Your task to perform on an android device: toggle javascript in the chrome app Image 0: 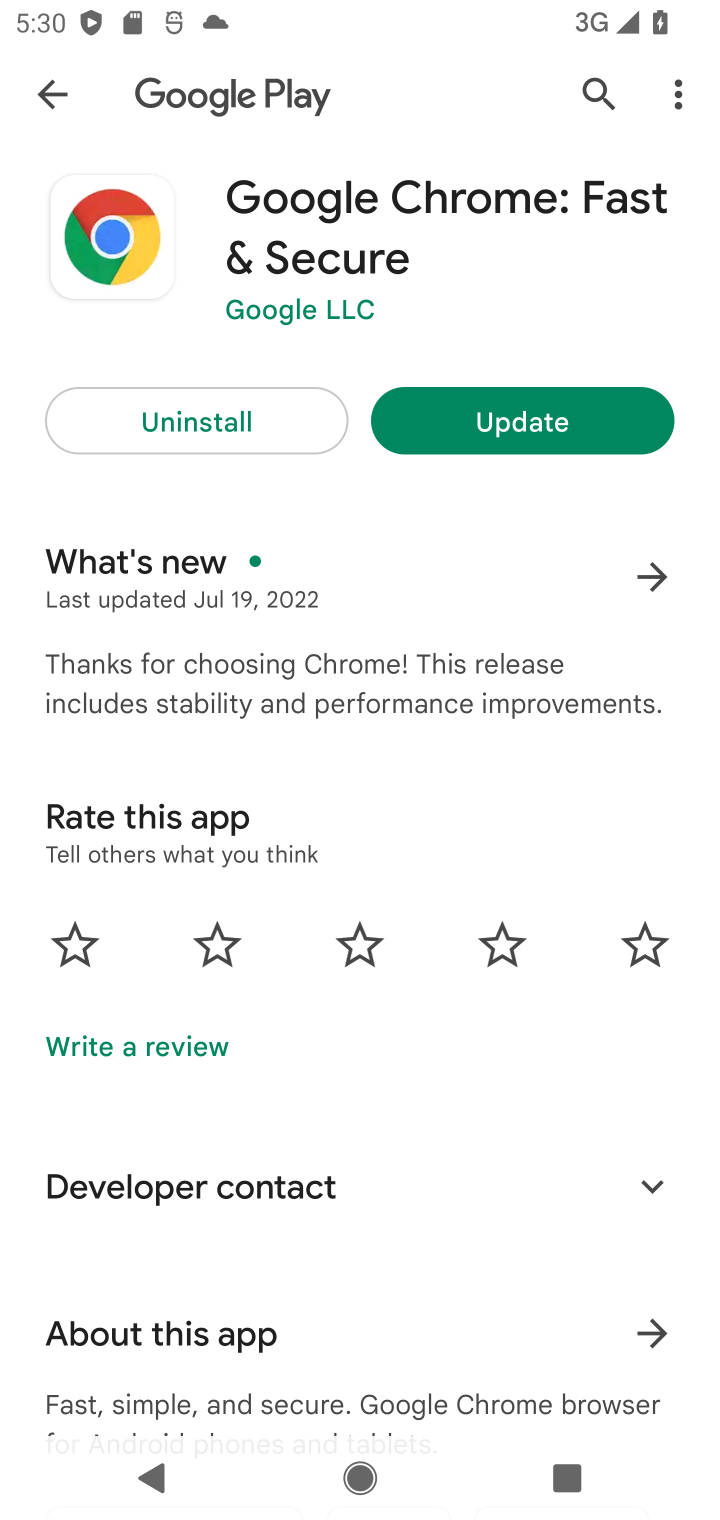
Step 0: press home button
Your task to perform on an android device: toggle javascript in the chrome app Image 1: 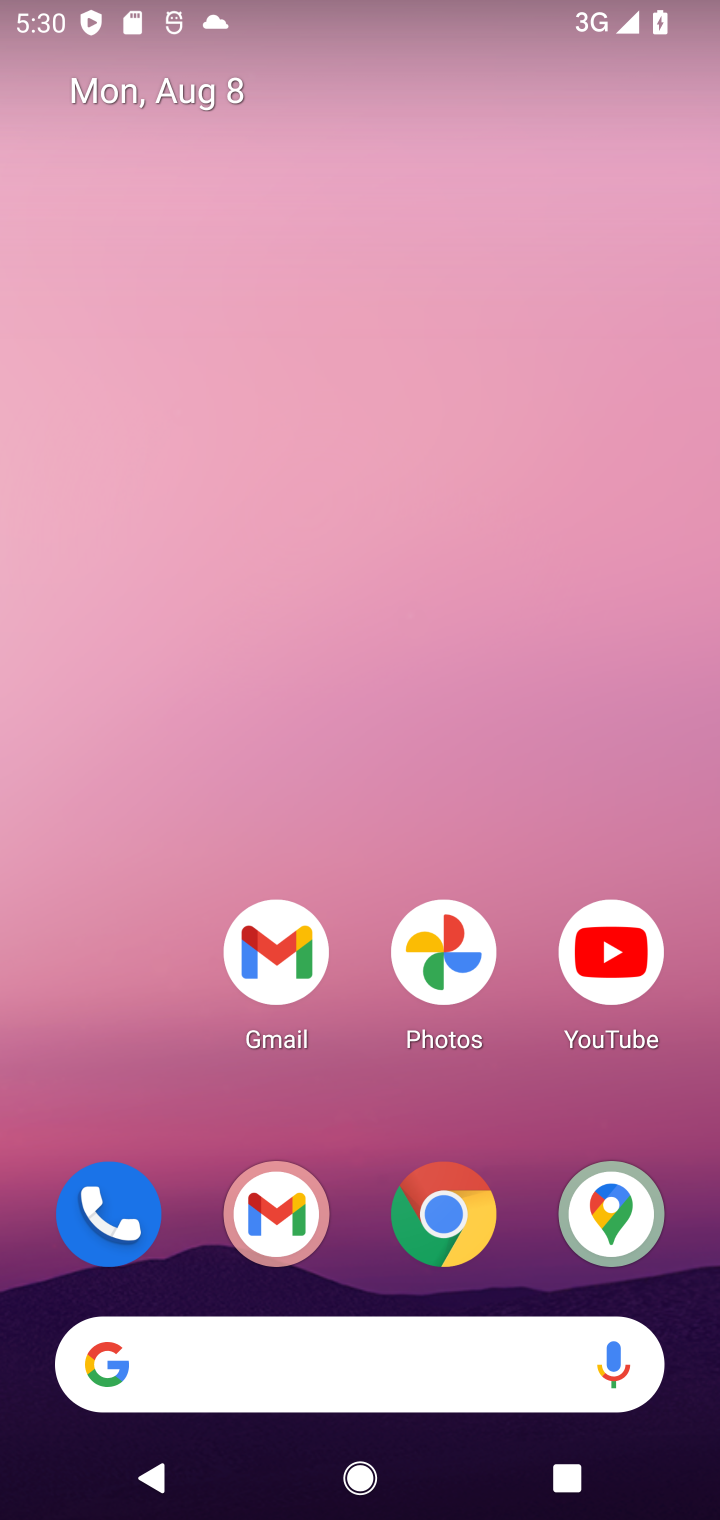
Step 1: click (434, 1222)
Your task to perform on an android device: toggle javascript in the chrome app Image 2: 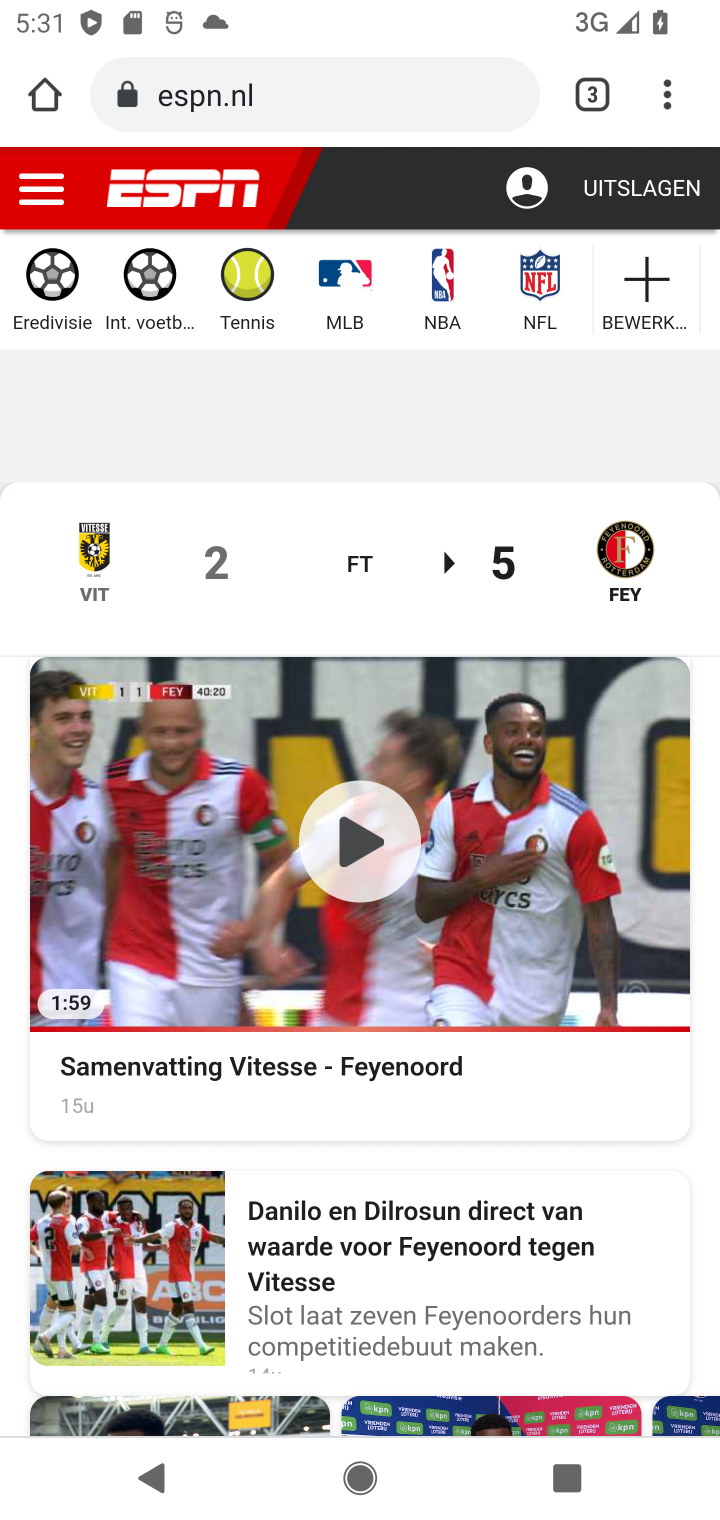
Step 2: drag from (659, 99) to (419, 1219)
Your task to perform on an android device: toggle javascript in the chrome app Image 3: 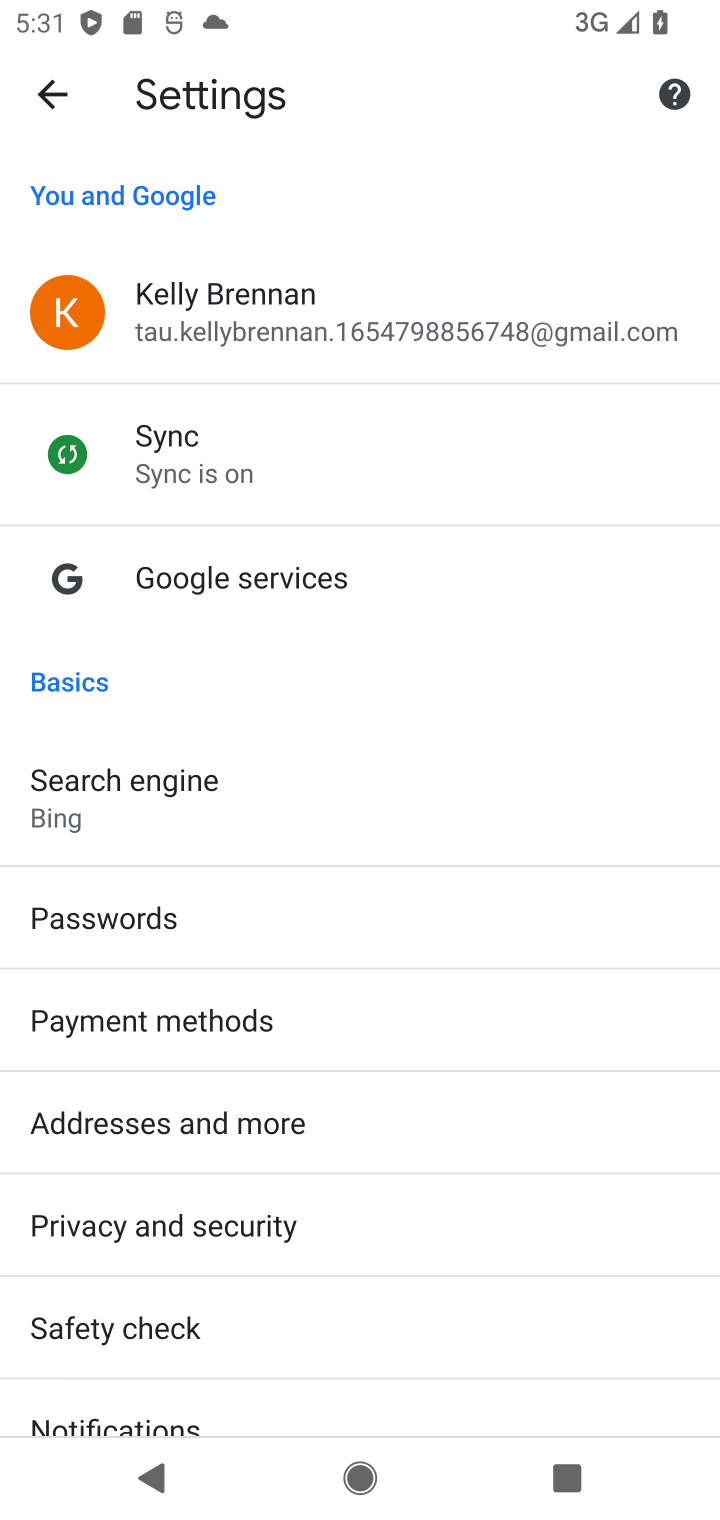
Step 3: drag from (240, 1312) to (239, 750)
Your task to perform on an android device: toggle javascript in the chrome app Image 4: 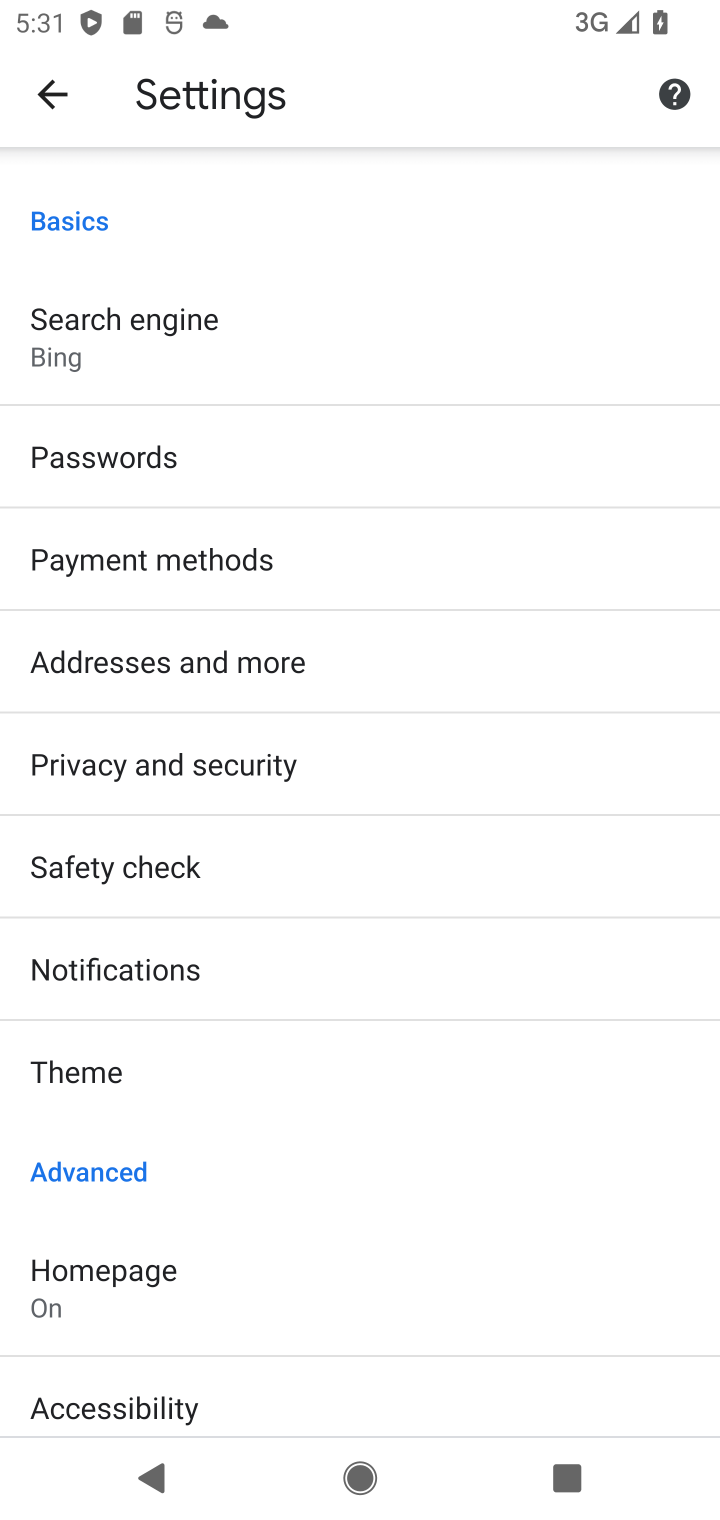
Step 4: drag from (154, 1332) to (183, 737)
Your task to perform on an android device: toggle javascript in the chrome app Image 5: 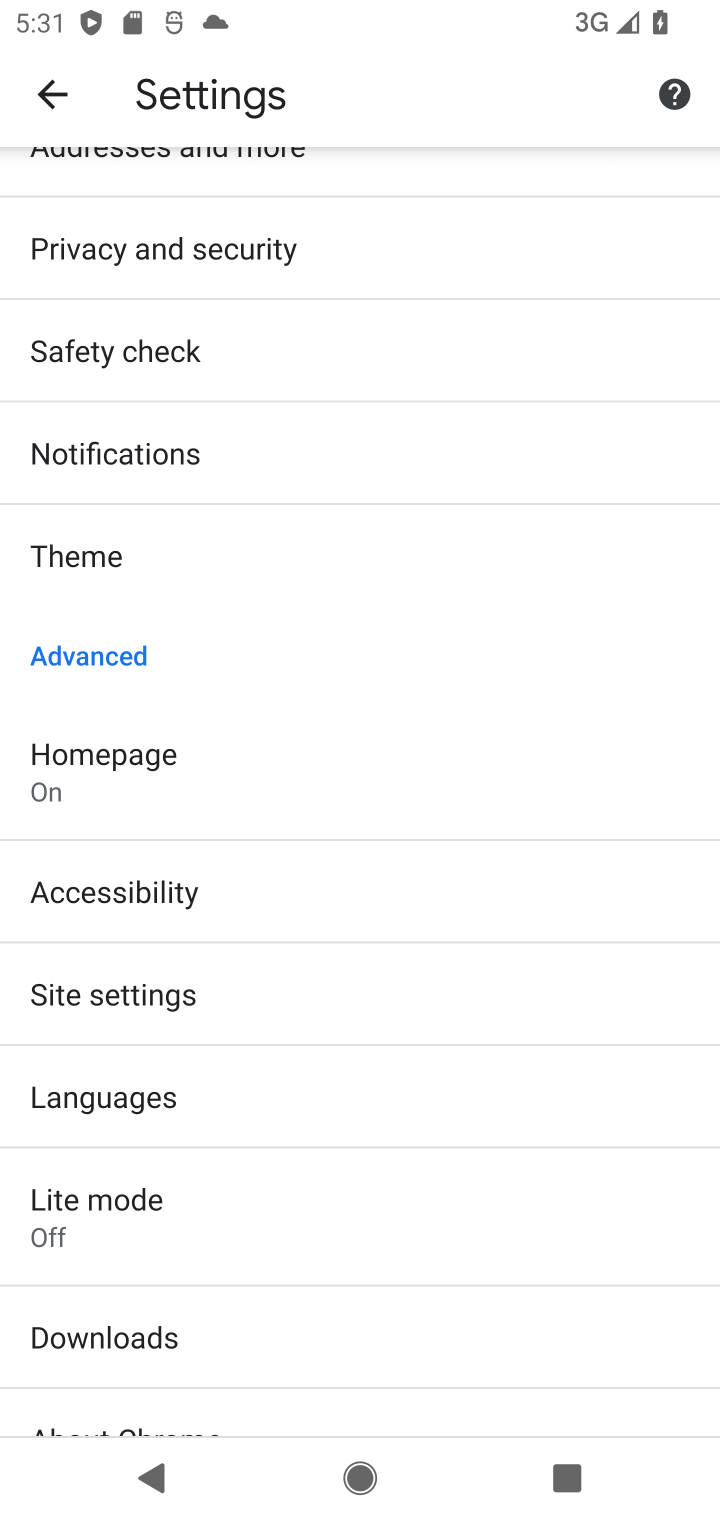
Step 5: click (114, 998)
Your task to perform on an android device: toggle javascript in the chrome app Image 6: 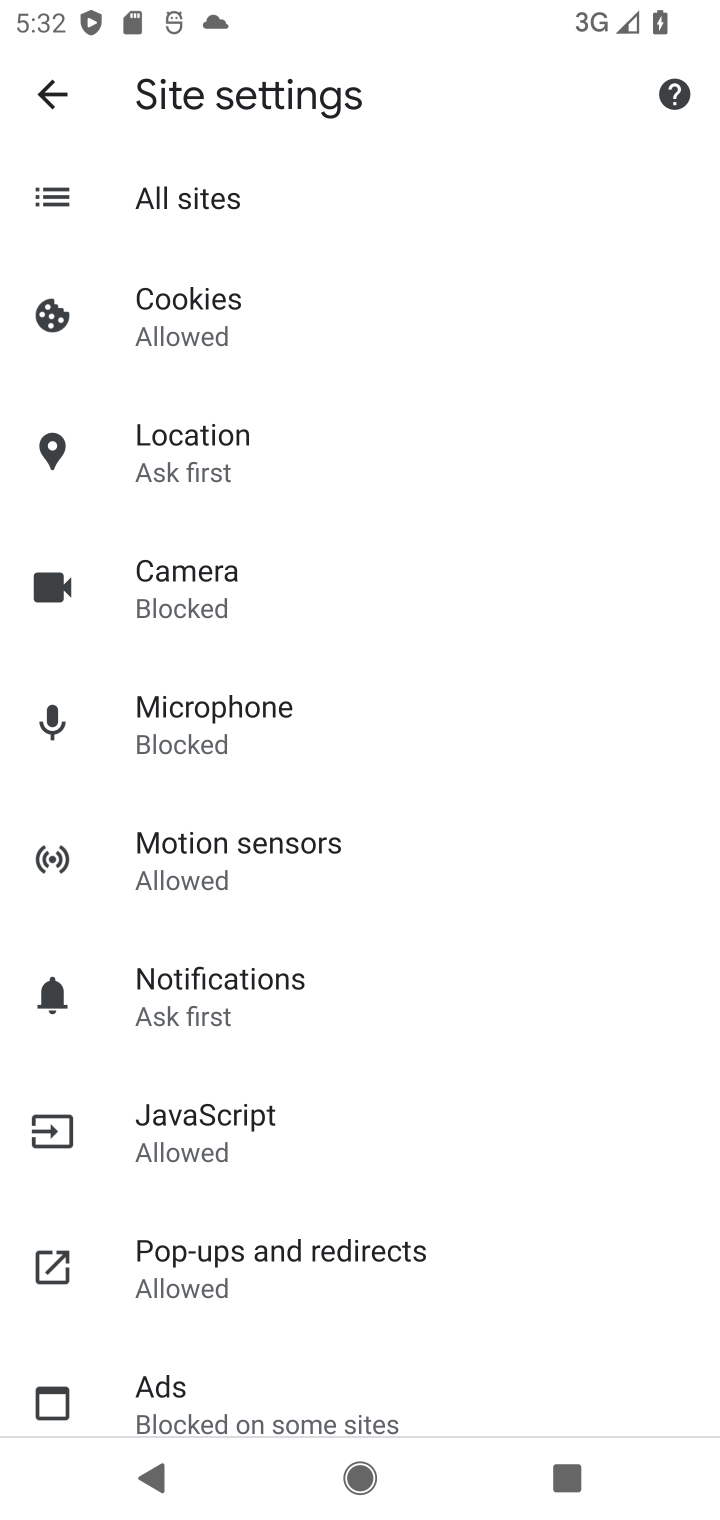
Step 6: click (201, 1133)
Your task to perform on an android device: toggle javascript in the chrome app Image 7: 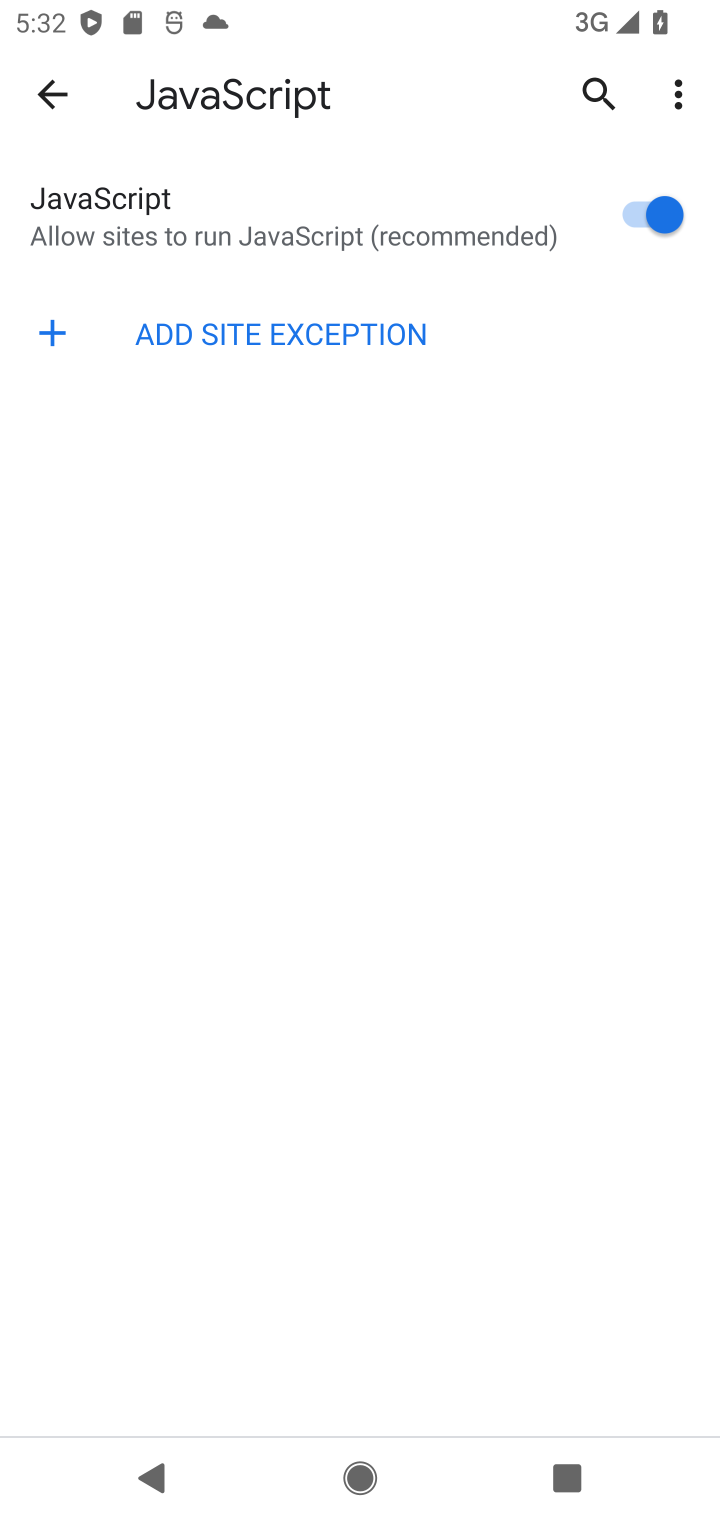
Step 7: click (657, 203)
Your task to perform on an android device: toggle javascript in the chrome app Image 8: 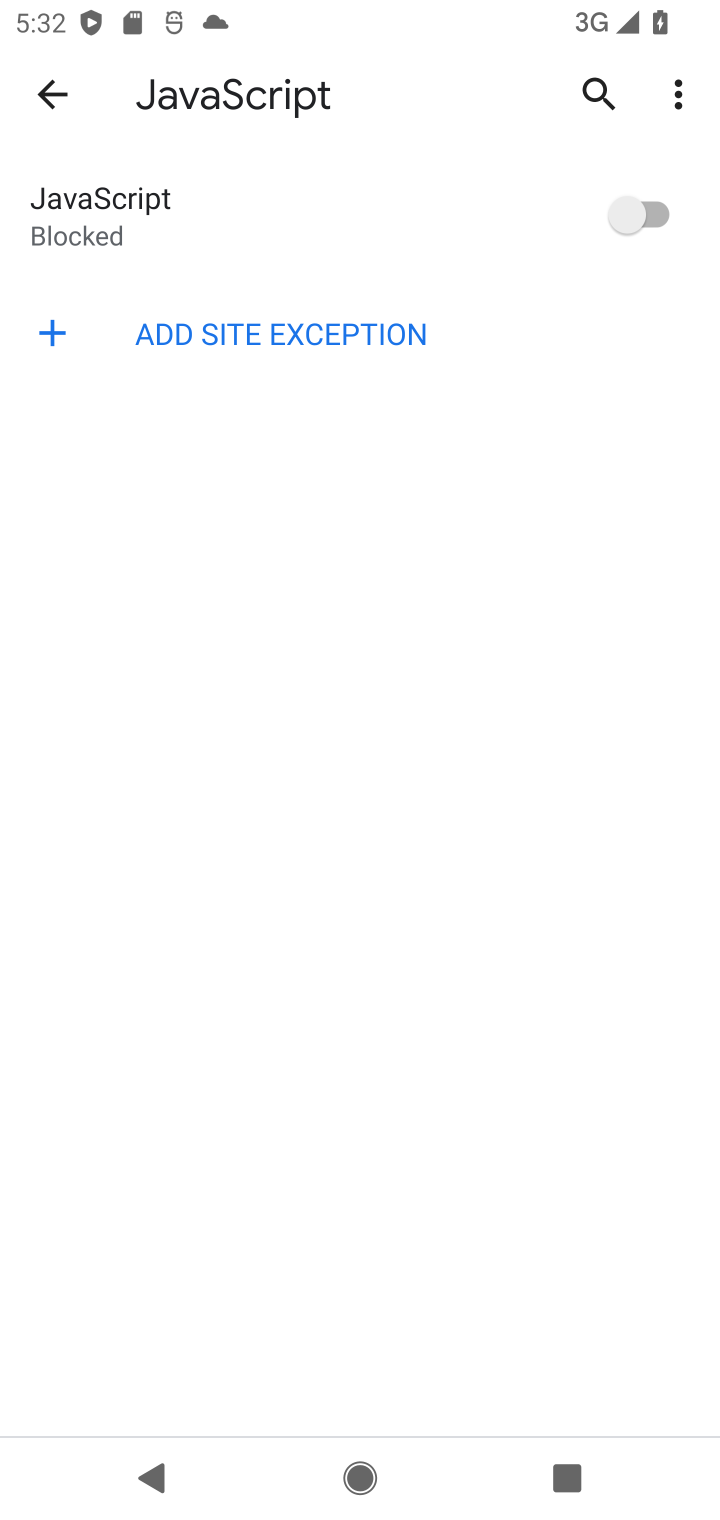
Step 8: task complete